Your task to perform on an android device: What's the weather today? Image 0: 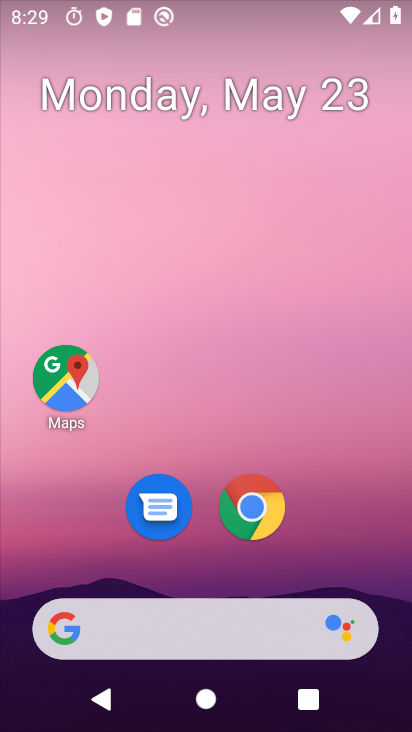
Step 0: drag from (352, 566) to (352, 15)
Your task to perform on an android device: What's the weather today? Image 1: 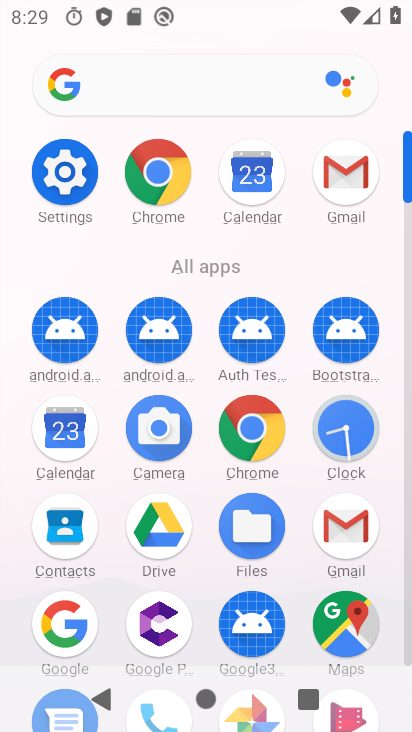
Step 1: click (64, 82)
Your task to perform on an android device: What's the weather today? Image 2: 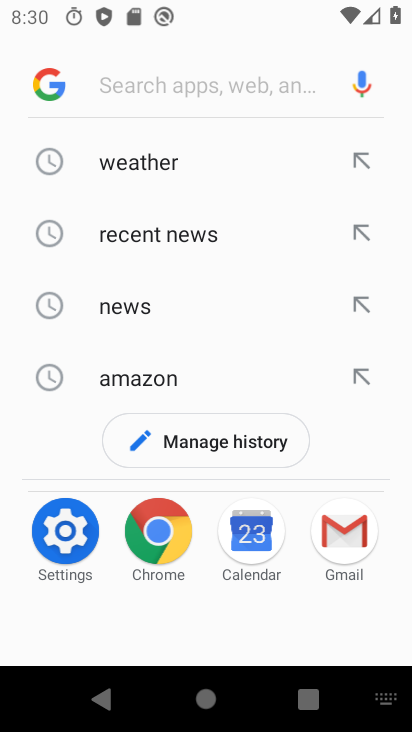
Step 2: click (60, 89)
Your task to perform on an android device: What's the weather today? Image 3: 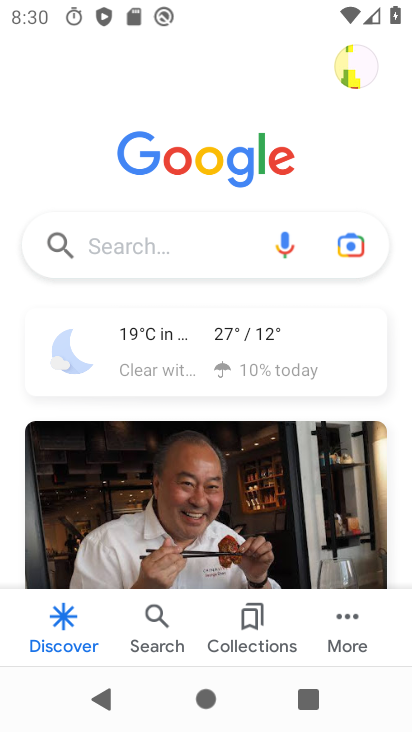
Step 3: click (143, 352)
Your task to perform on an android device: What's the weather today? Image 4: 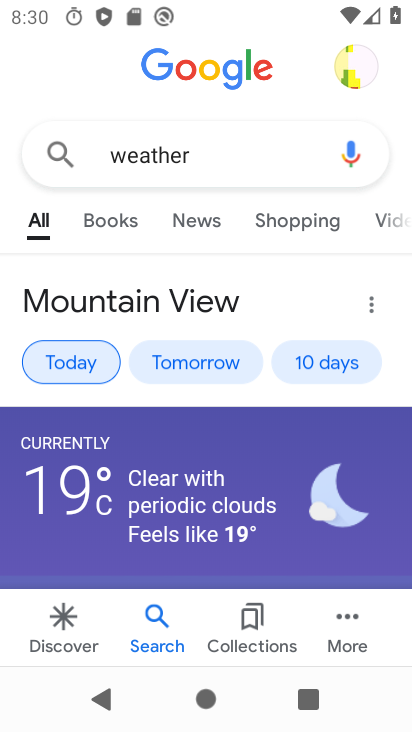
Step 4: task complete